Your task to perform on an android device: Go to Yahoo.com Image 0: 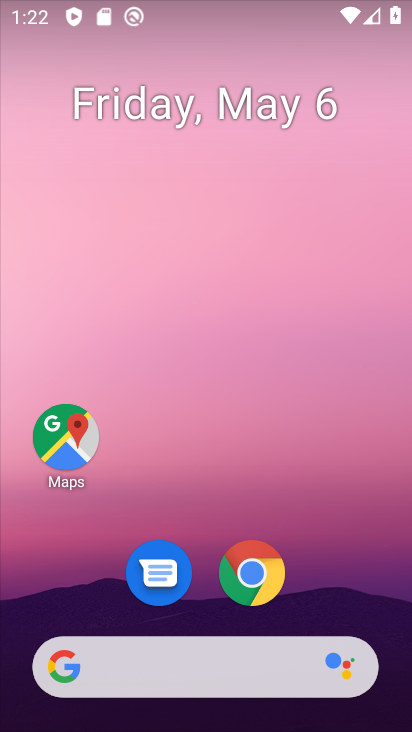
Step 0: click (178, 665)
Your task to perform on an android device: Go to Yahoo.com Image 1: 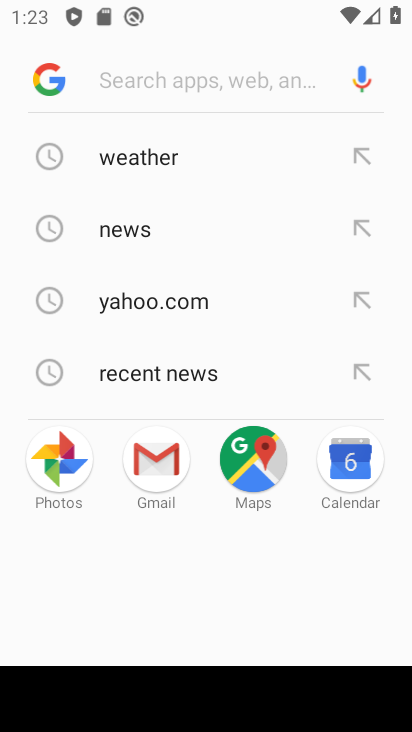
Step 1: type "y"
Your task to perform on an android device: Go to Yahoo.com Image 2: 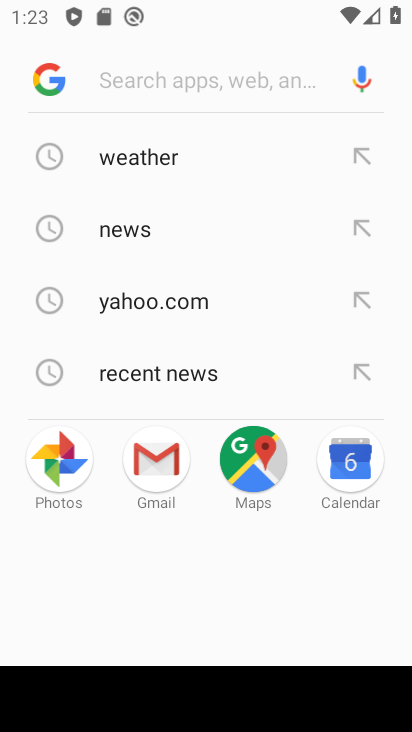
Step 2: click (152, 299)
Your task to perform on an android device: Go to Yahoo.com Image 3: 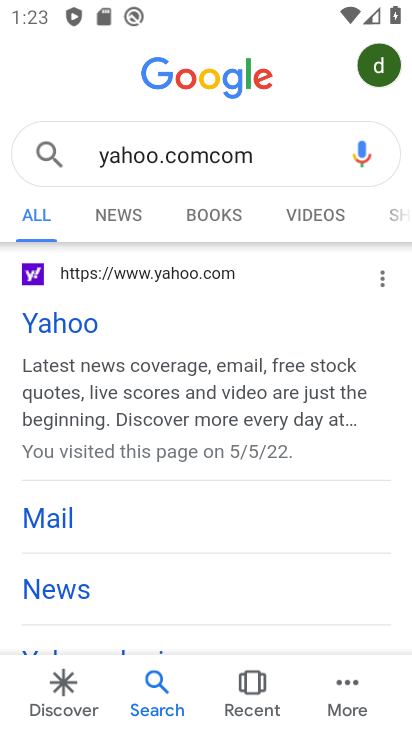
Step 3: click (50, 330)
Your task to perform on an android device: Go to Yahoo.com Image 4: 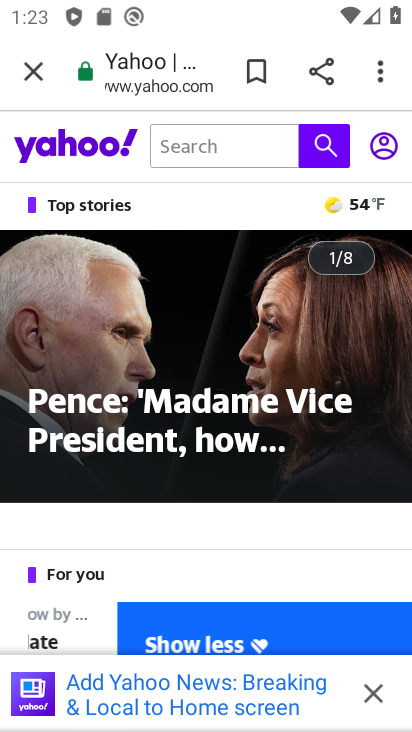
Step 4: task complete